Your task to perform on an android device: Go to location settings Image 0: 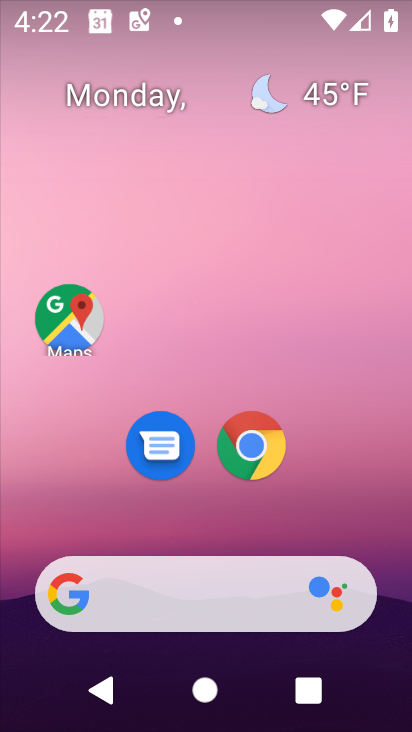
Step 0: drag from (195, 532) to (219, 21)
Your task to perform on an android device: Go to location settings Image 1: 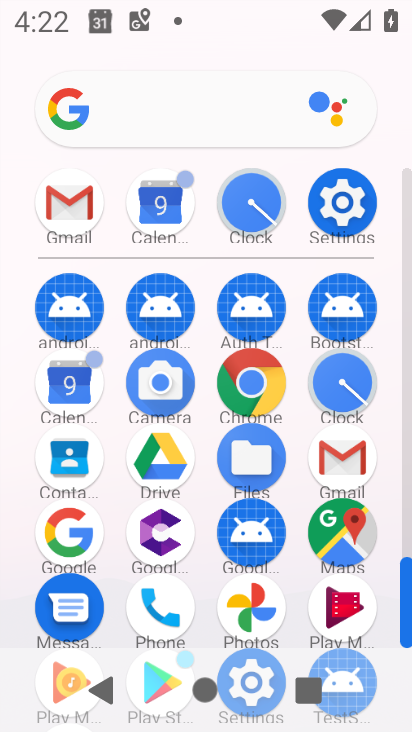
Step 1: click (344, 197)
Your task to perform on an android device: Go to location settings Image 2: 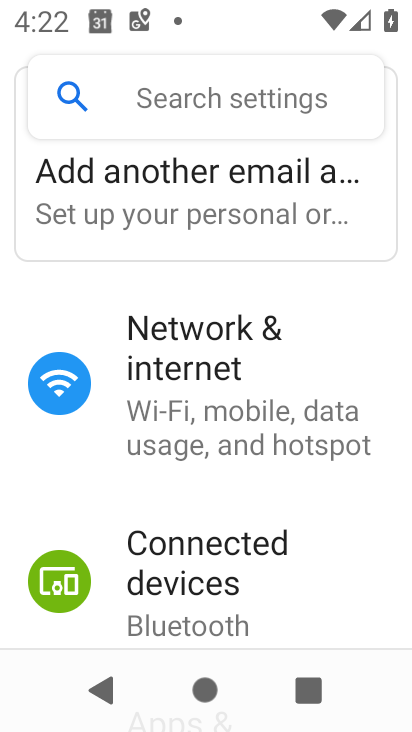
Step 2: drag from (233, 593) to (188, 269)
Your task to perform on an android device: Go to location settings Image 3: 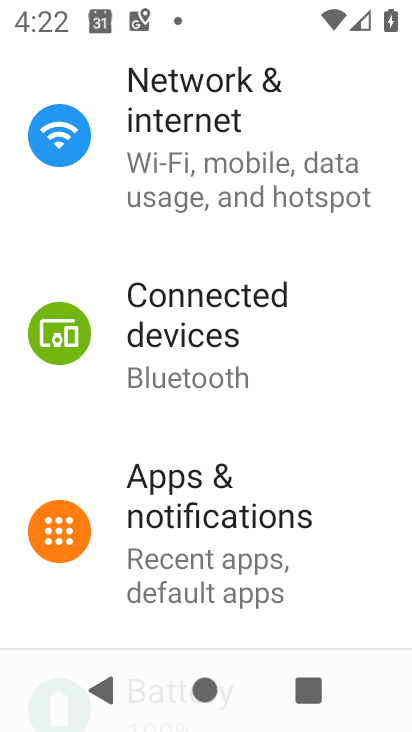
Step 3: drag from (208, 565) to (205, 155)
Your task to perform on an android device: Go to location settings Image 4: 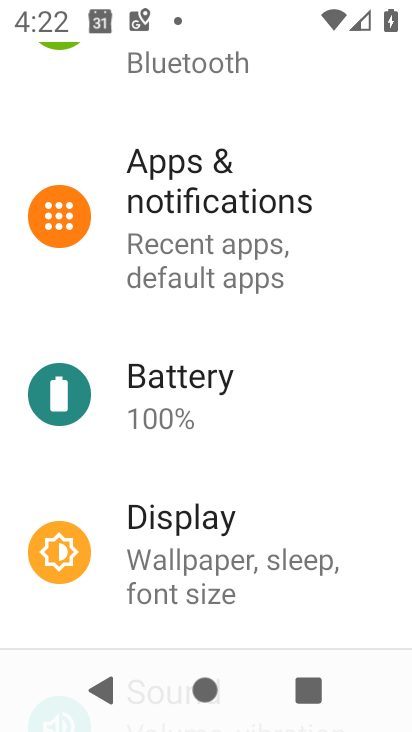
Step 4: drag from (183, 569) to (178, 181)
Your task to perform on an android device: Go to location settings Image 5: 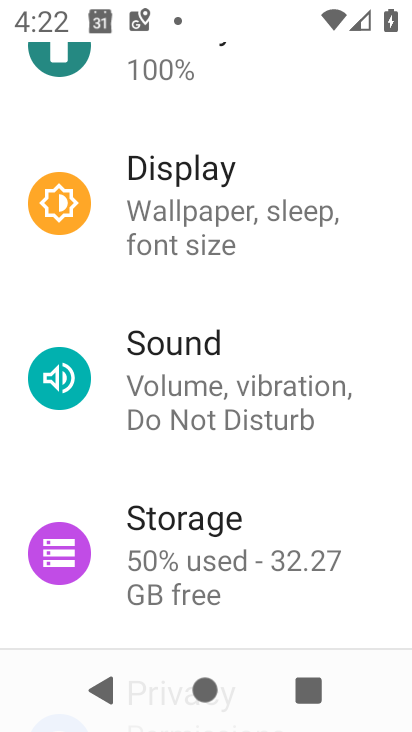
Step 5: drag from (206, 553) to (220, 179)
Your task to perform on an android device: Go to location settings Image 6: 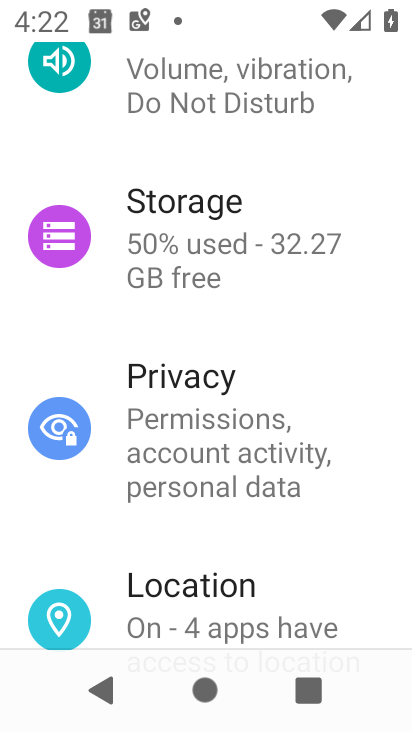
Step 6: click (194, 590)
Your task to perform on an android device: Go to location settings Image 7: 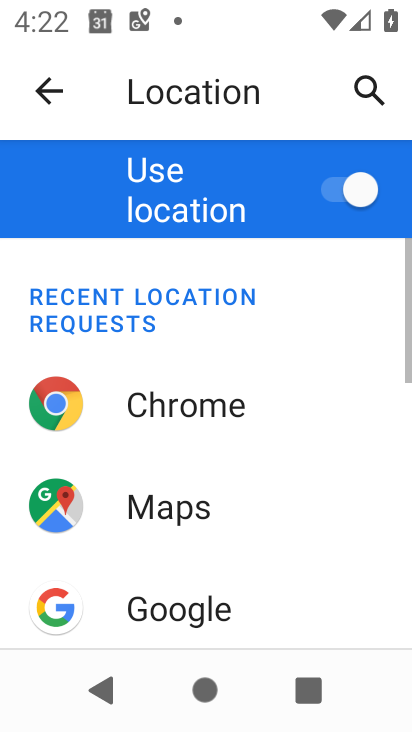
Step 7: task complete